Your task to perform on an android device: toggle wifi Image 0: 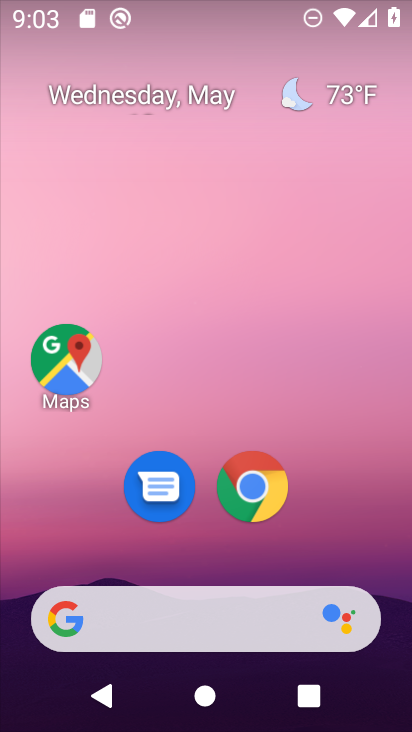
Step 0: drag from (404, 603) to (299, 159)
Your task to perform on an android device: toggle wifi Image 1: 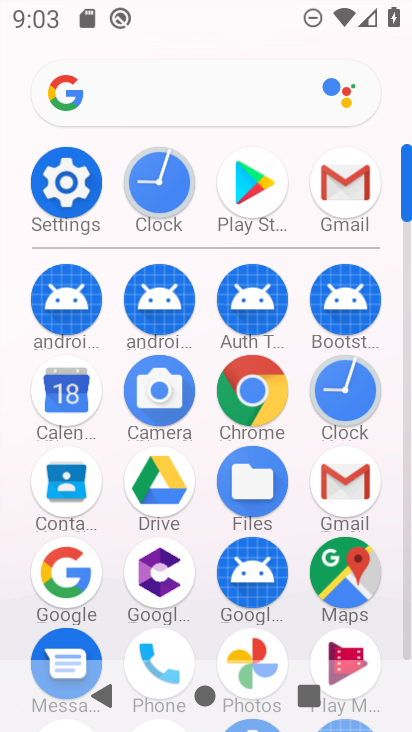
Step 1: click (405, 643)
Your task to perform on an android device: toggle wifi Image 2: 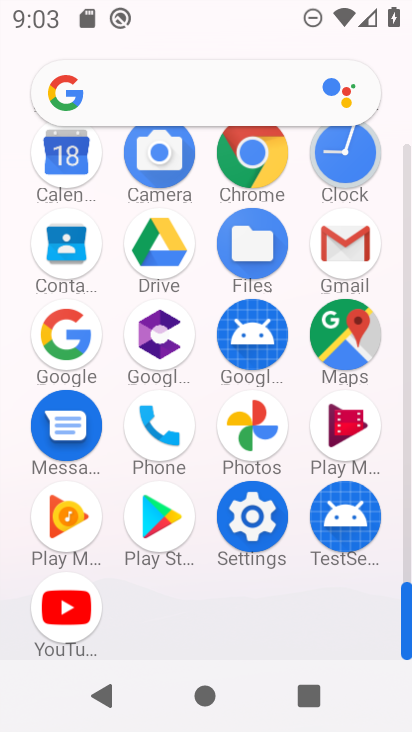
Step 2: click (247, 513)
Your task to perform on an android device: toggle wifi Image 3: 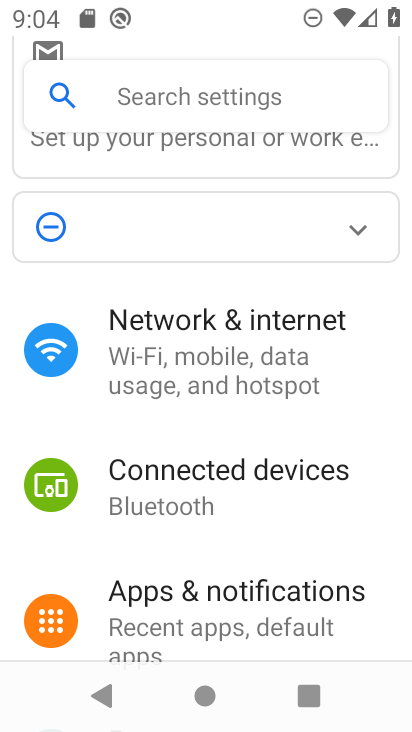
Step 3: click (174, 329)
Your task to perform on an android device: toggle wifi Image 4: 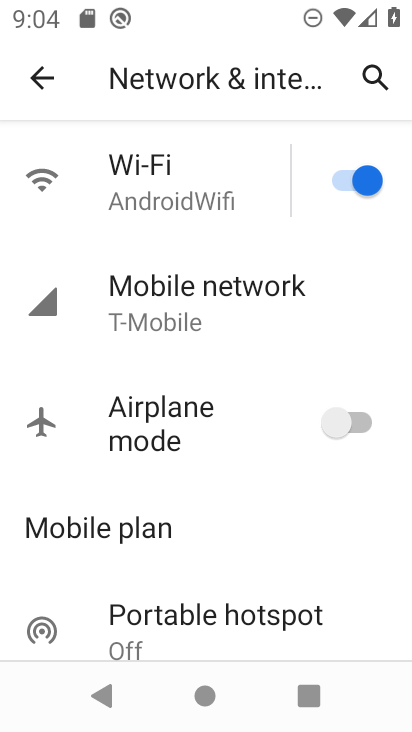
Step 4: click (341, 176)
Your task to perform on an android device: toggle wifi Image 5: 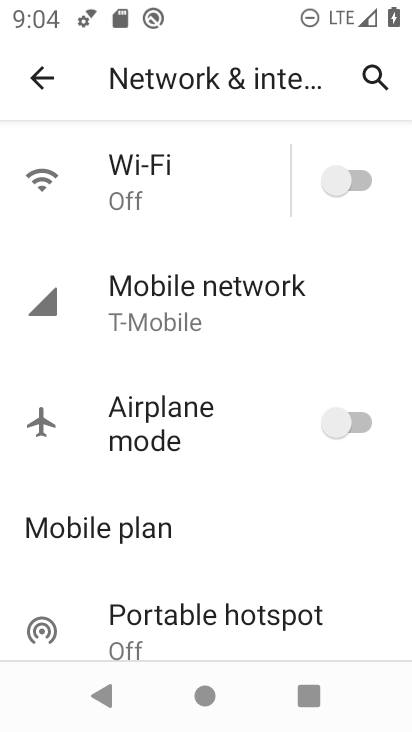
Step 5: task complete